Your task to perform on an android device: turn notification dots off Image 0: 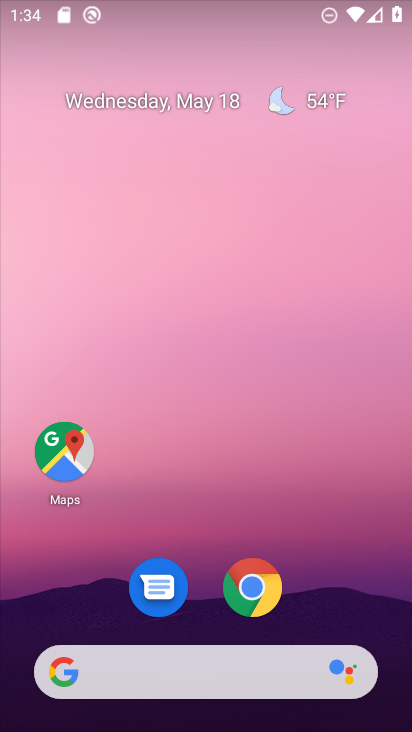
Step 0: click (59, 454)
Your task to perform on an android device: turn notification dots off Image 1: 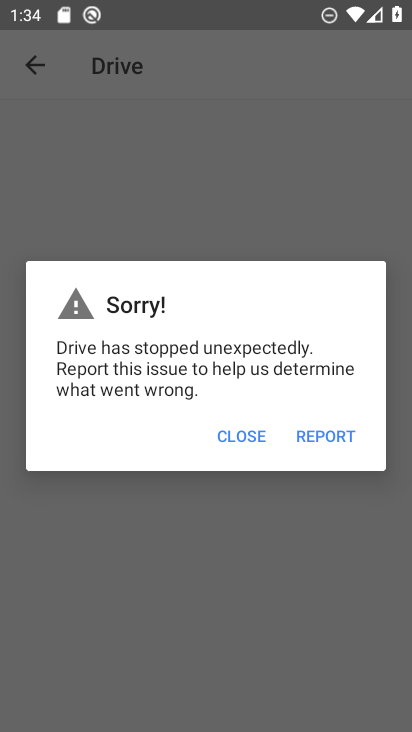
Step 1: press home button
Your task to perform on an android device: turn notification dots off Image 2: 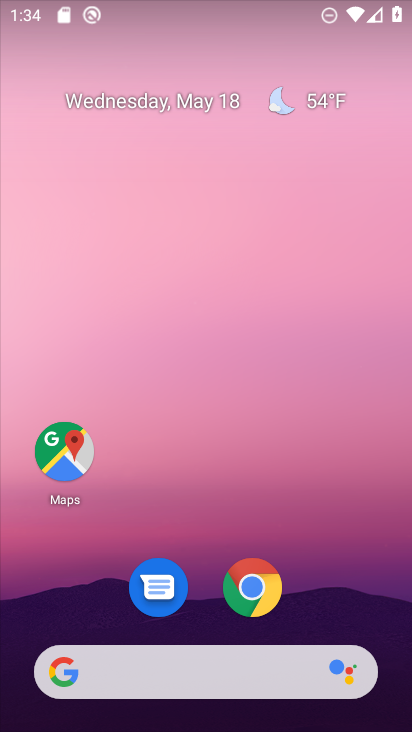
Step 2: drag from (188, 619) to (295, 240)
Your task to perform on an android device: turn notification dots off Image 3: 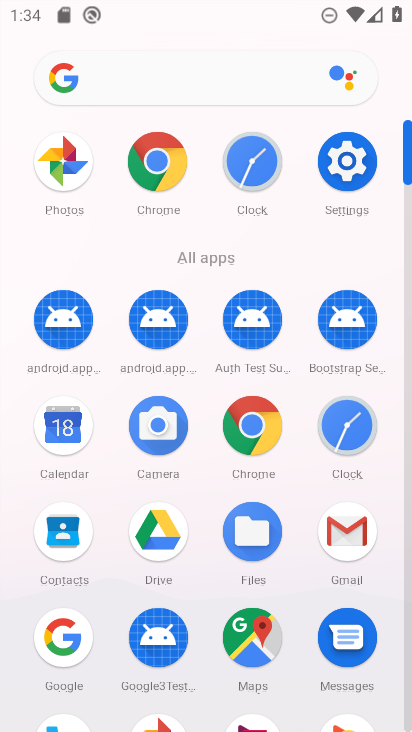
Step 3: drag from (151, 637) to (226, 472)
Your task to perform on an android device: turn notification dots off Image 4: 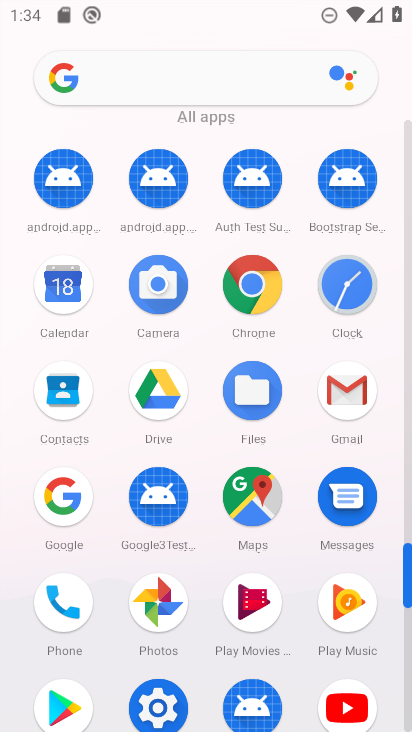
Step 4: click (163, 699)
Your task to perform on an android device: turn notification dots off Image 5: 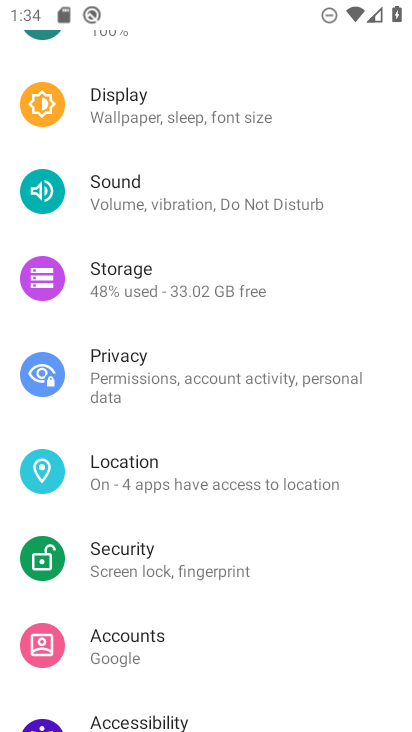
Step 5: drag from (162, 699) to (267, 367)
Your task to perform on an android device: turn notification dots off Image 6: 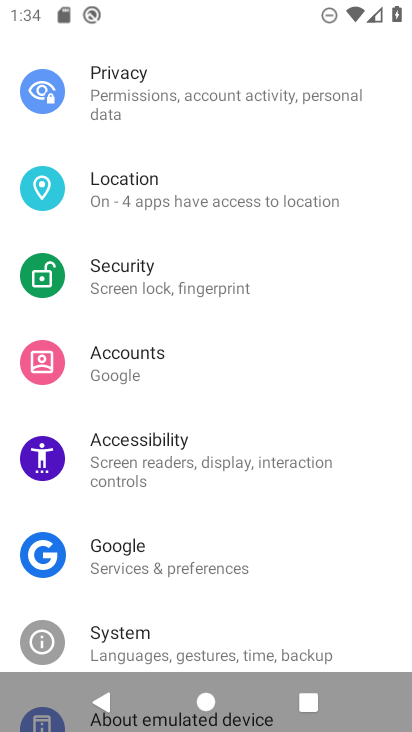
Step 6: drag from (248, 219) to (237, 567)
Your task to perform on an android device: turn notification dots off Image 7: 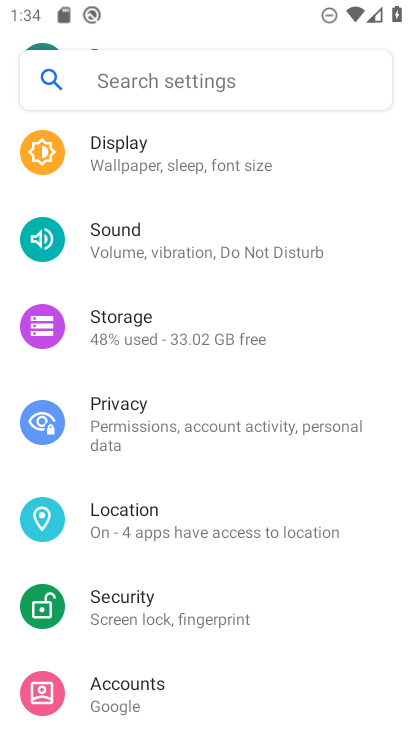
Step 7: drag from (199, 258) to (199, 552)
Your task to perform on an android device: turn notification dots off Image 8: 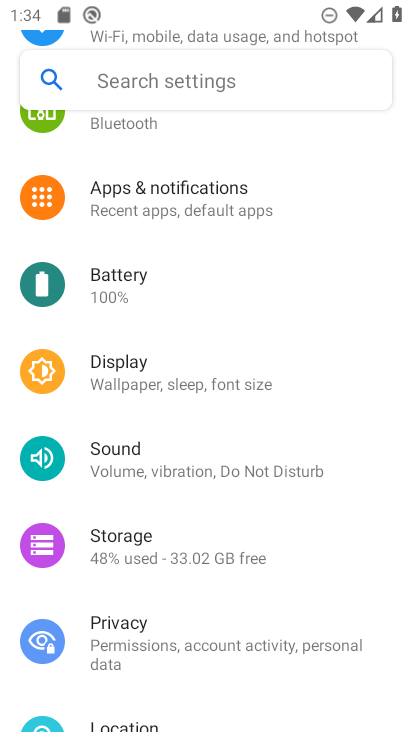
Step 8: click (189, 205)
Your task to perform on an android device: turn notification dots off Image 9: 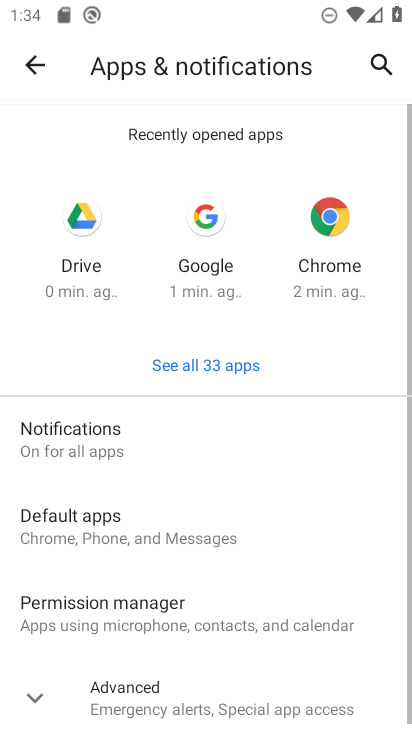
Step 9: click (163, 448)
Your task to perform on an android device: turn notification dots off Image 10: 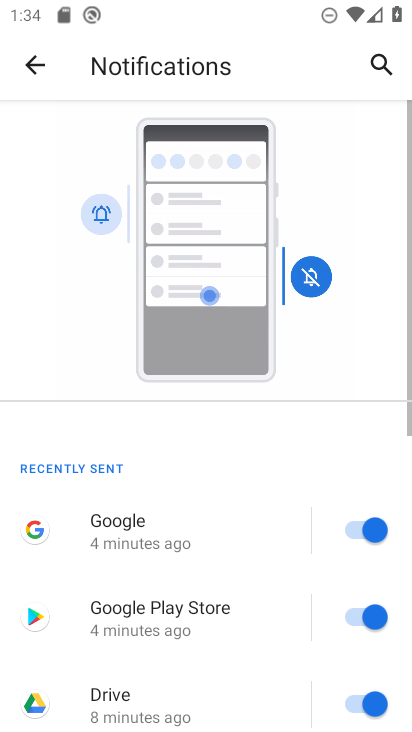
Step 10: drag from (139, 606) to (300, 170)
Your task to perform on an android device: turn notification dots off Image 11: 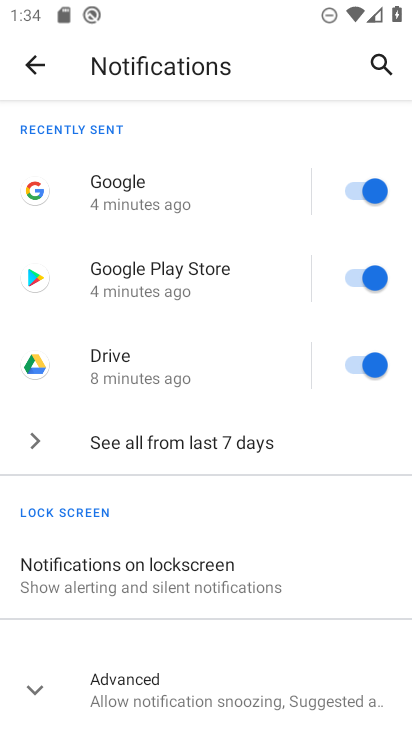
Step 11: click (174, 685)
Your task to perform on an android device: turn notification dots off Image 12: 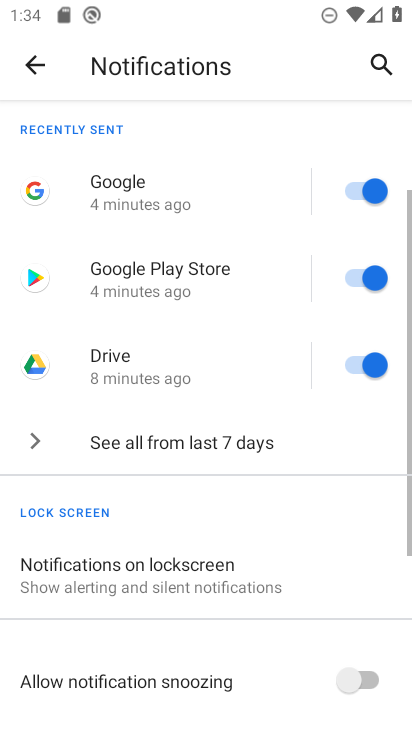
Step 12: drag from (174, 683) to (284, 343)
Your task to perform on an android device: turn notification dots off Image 13: 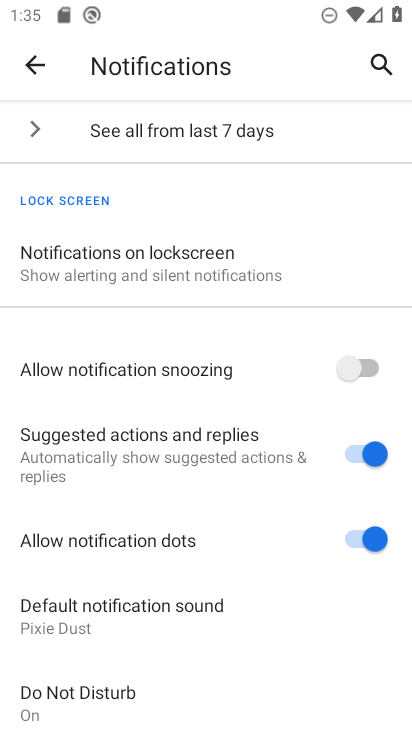
Step 13: click (357, 539)
Your task to perform on an android device: turn notification dots off Image 14: 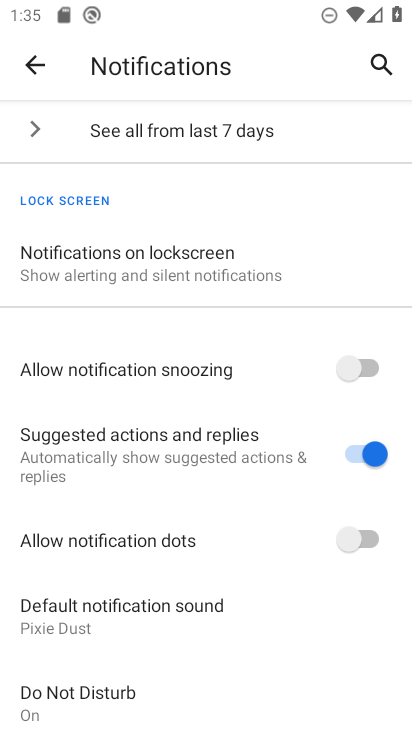
Step 14: task complete